Your task to perform on an android device: Open Android settings Image 0: 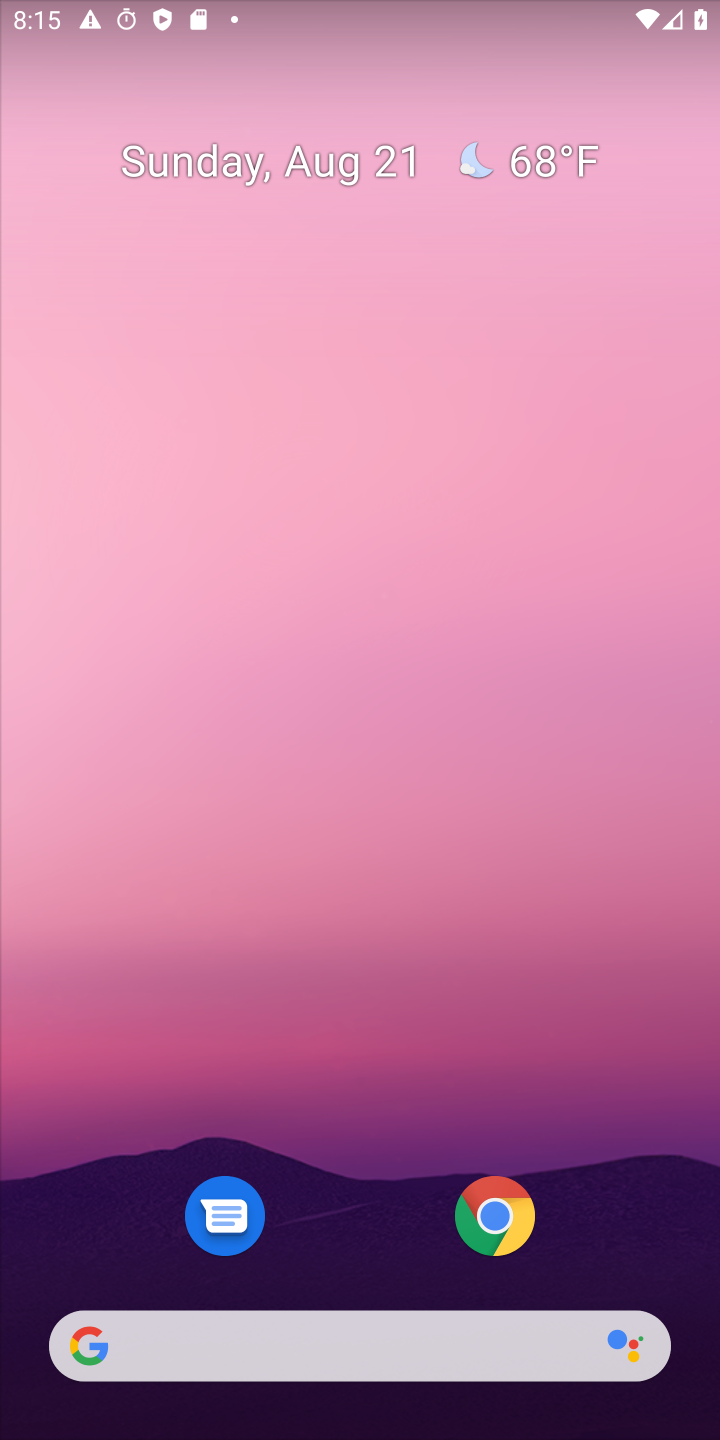
Step 0: drag from (311, 942) to (353, 4)
Your task to perform on an android device: Open Android settings Image 1: 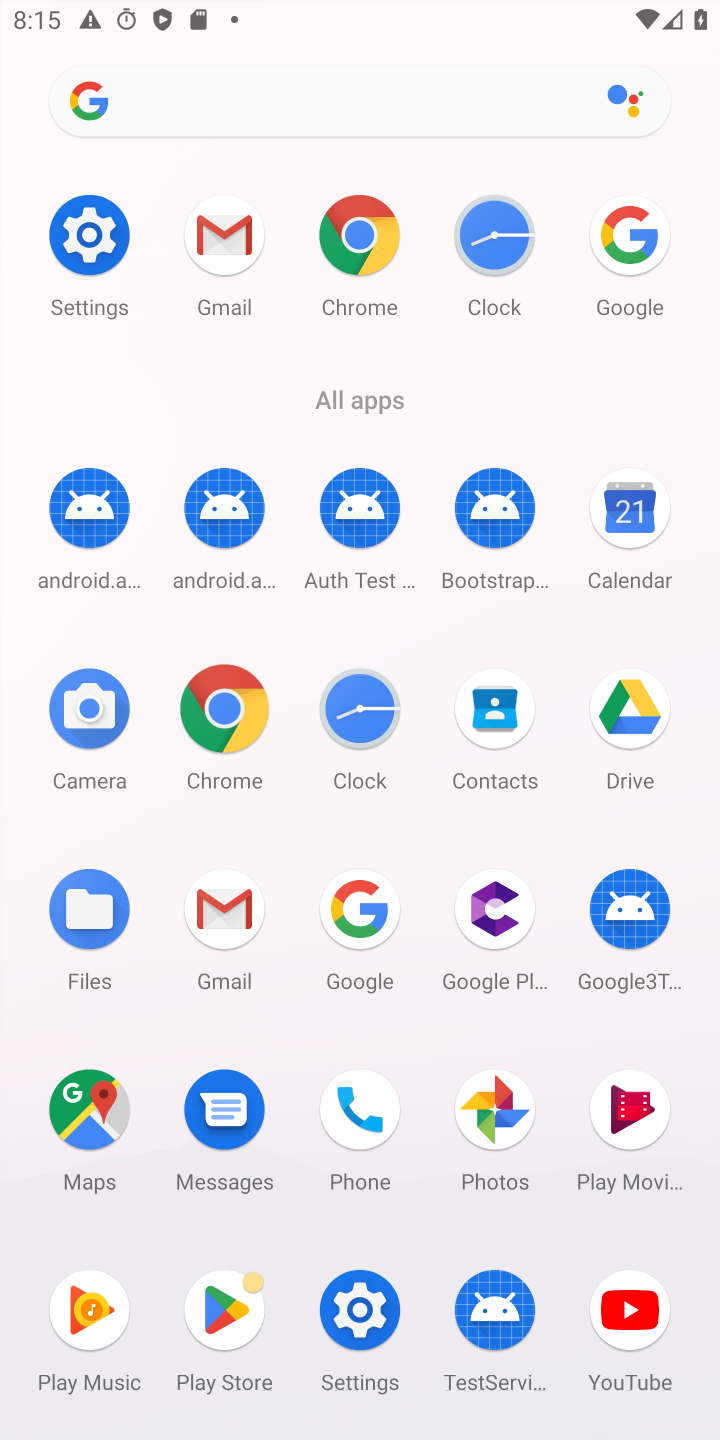
Step 1: click (369, 1319)
Your task to perform on an android device: Open Android settings Image 2: 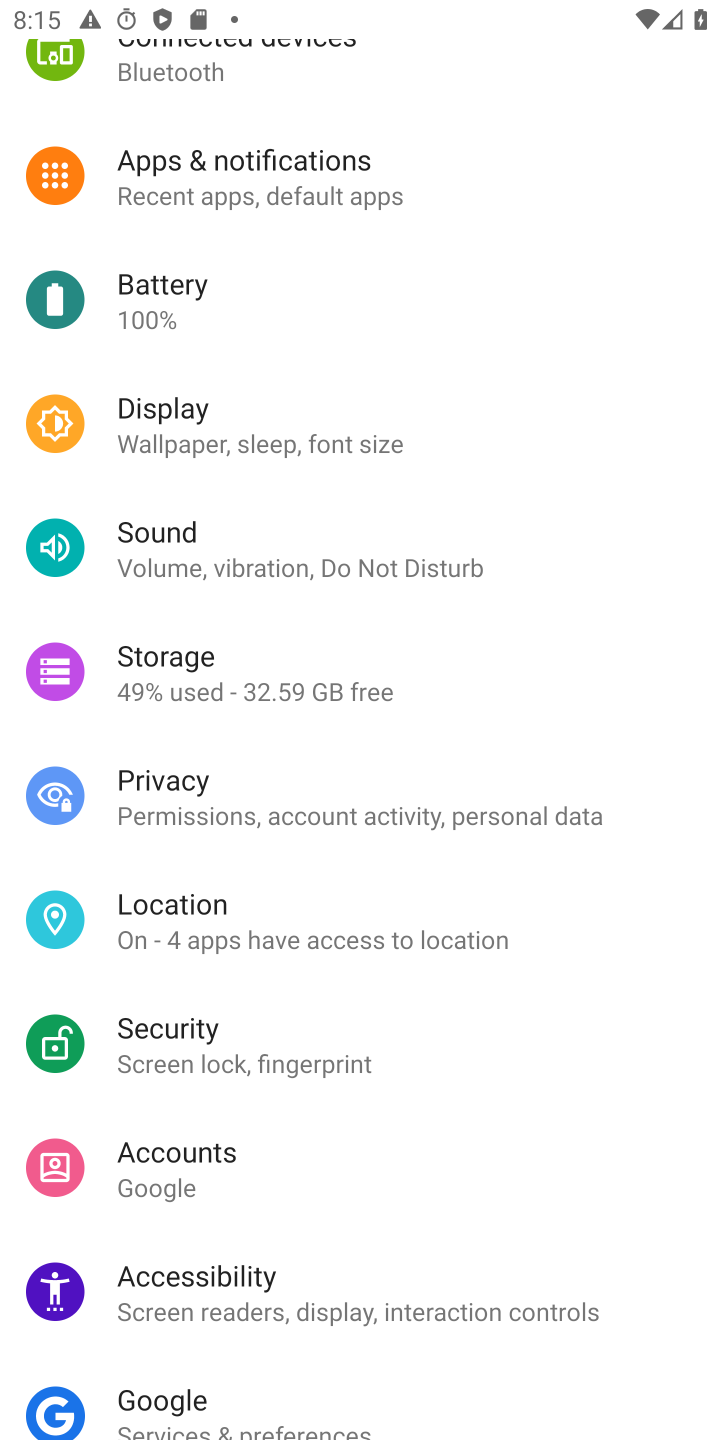
Step 2: drag from (300, 501) to (271, 34)
Your task to perform on an android device: Open Android settings Image 3: 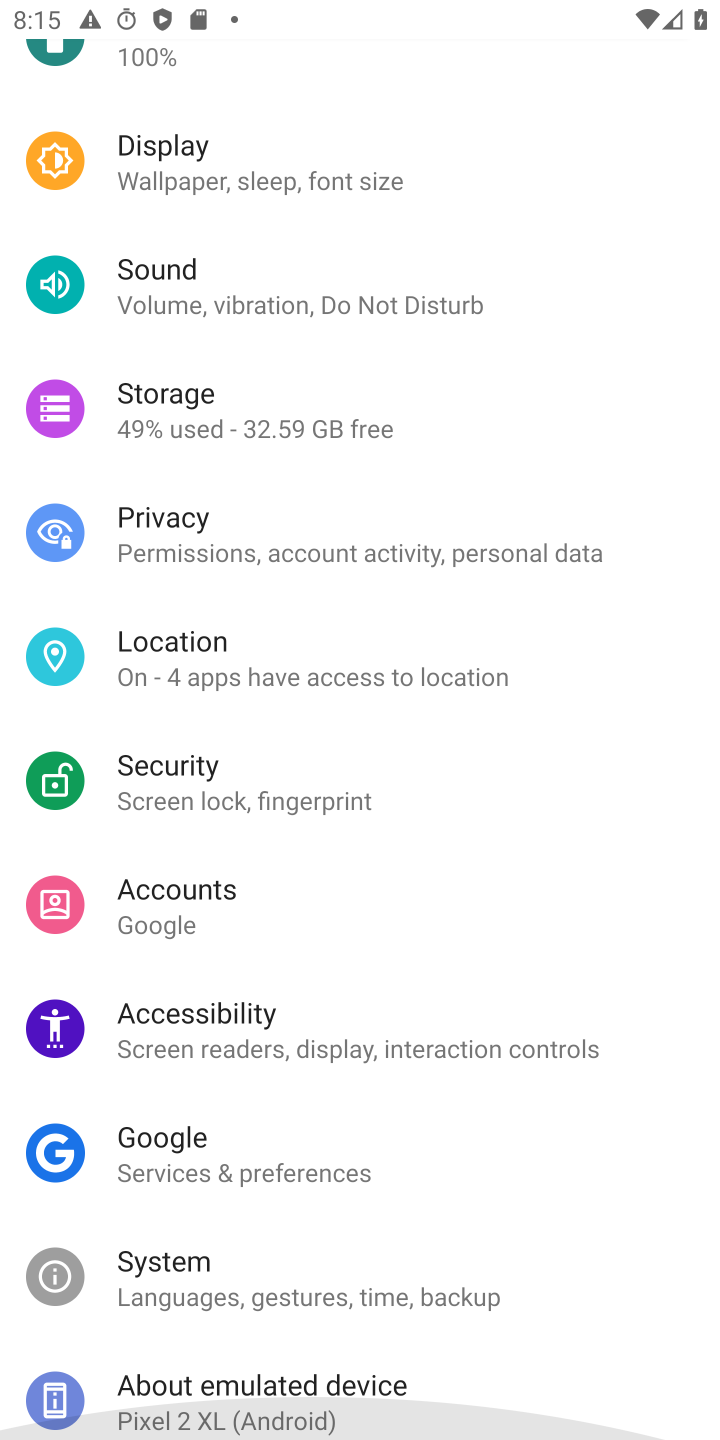
Step 3: drag from (344, 1079) to (309, 46)
Your task to perform on an android device: Open Android settings Image 4: 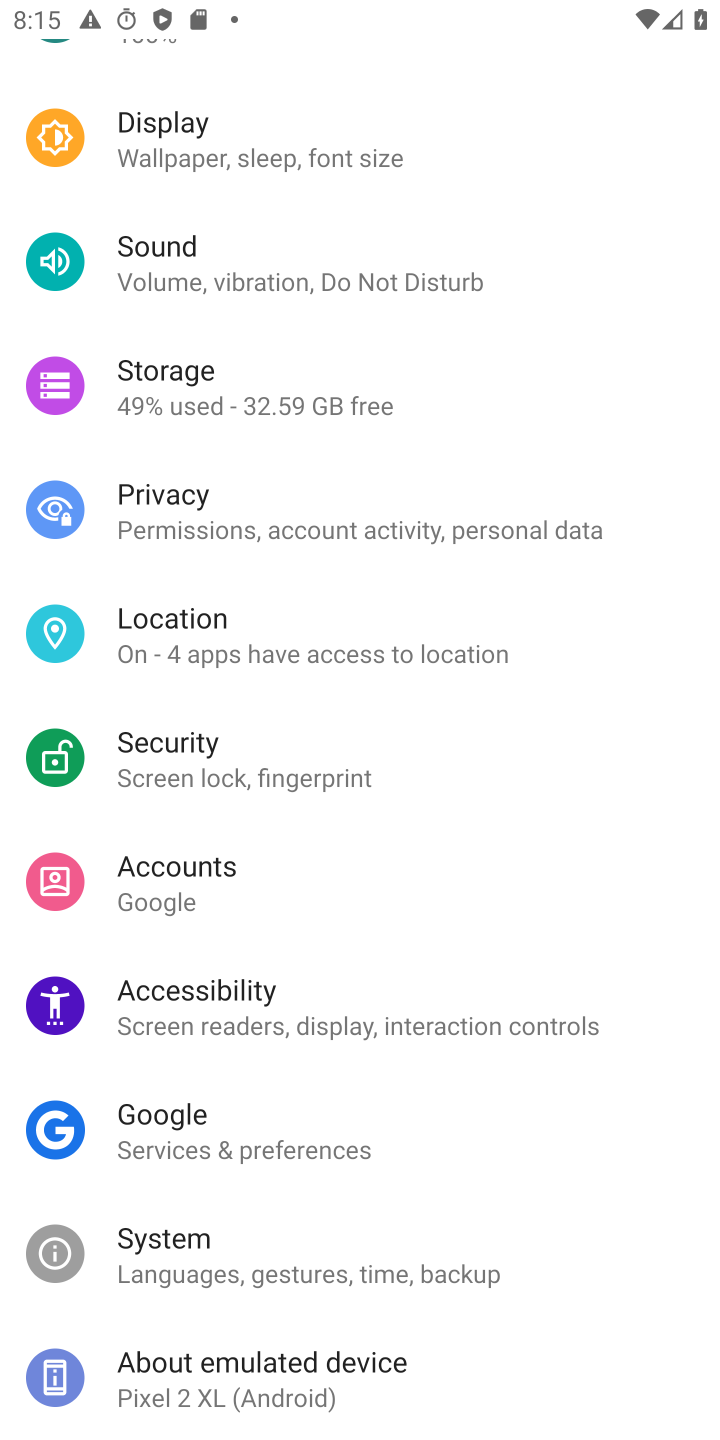
Step 4: click (240, 1401)
Your task to perform on an android device: Open Android settings Image 5: 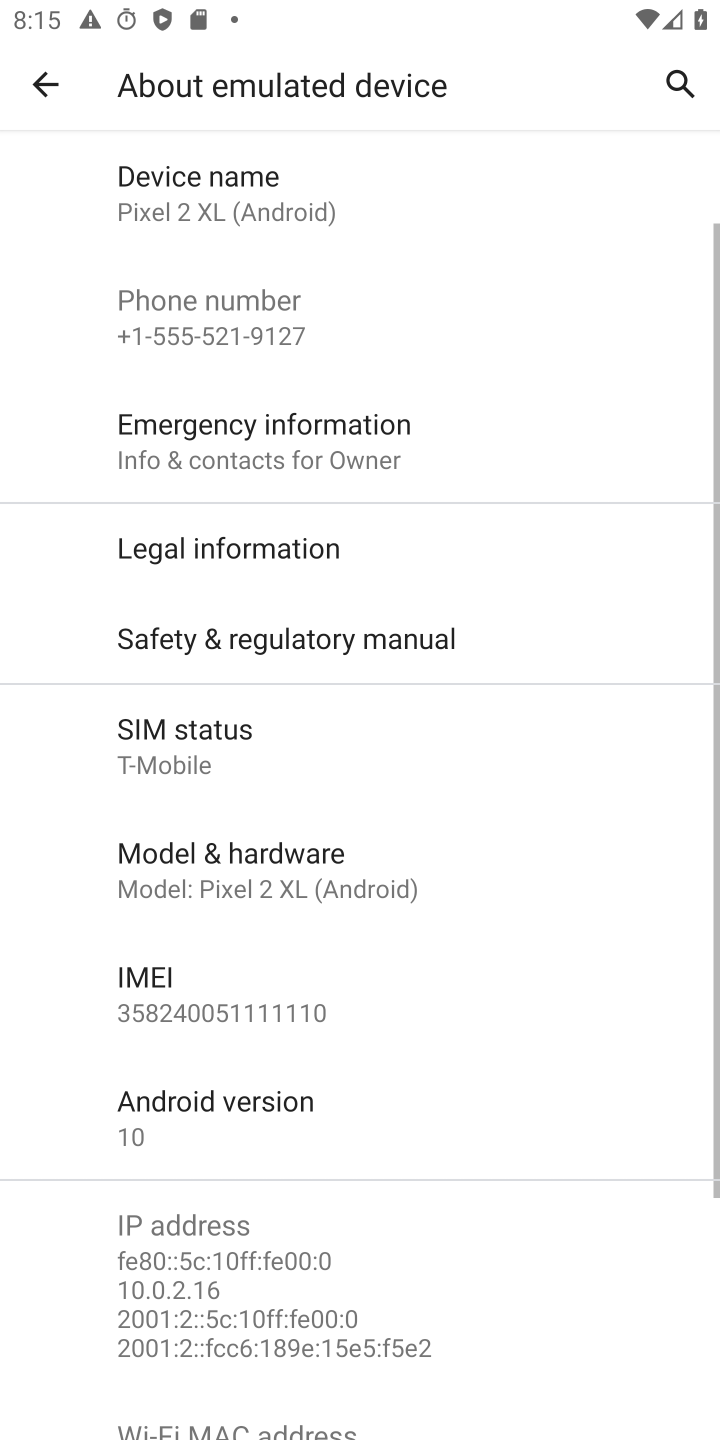
Step 5: click (238, 1112)
Your task to perform on an android device: Open Android settings Image 6: 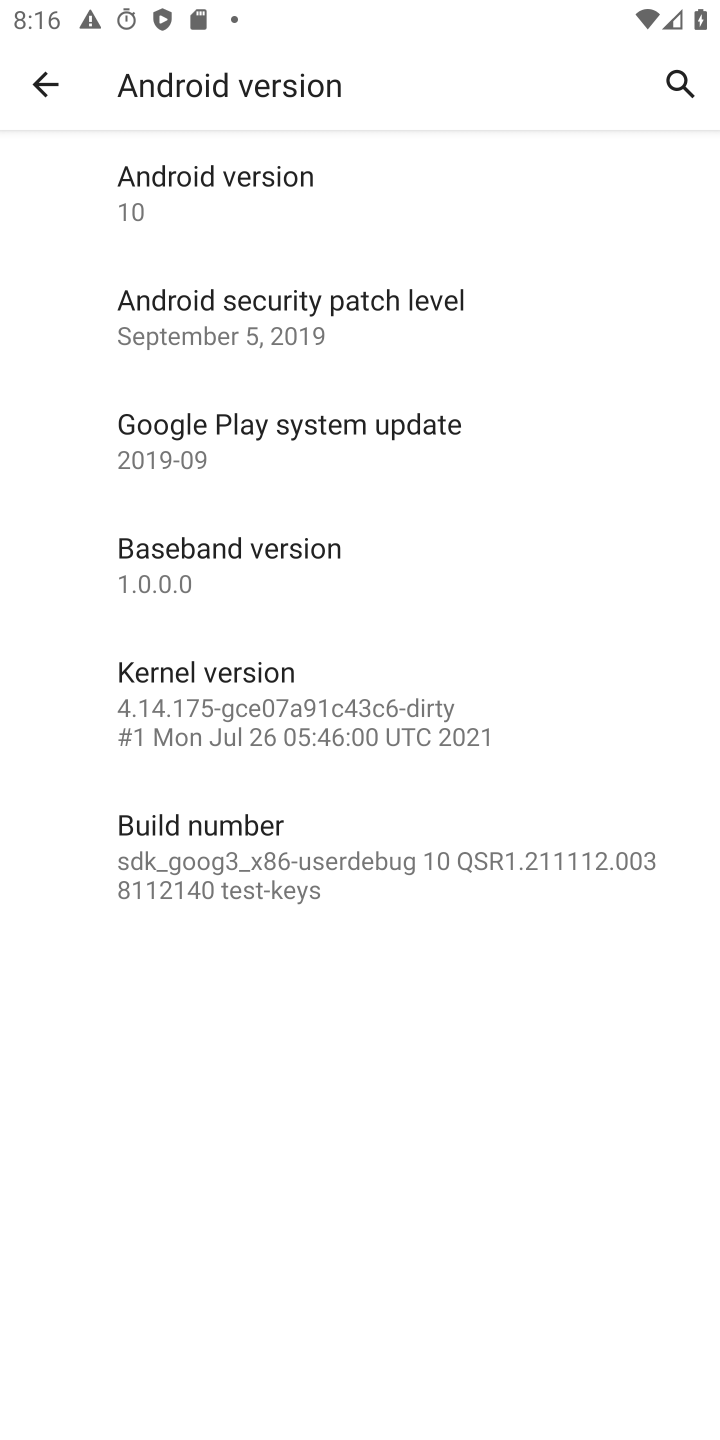
Step 6: task complete